Your task to perform on an android device: Show me the top rated dinnerware on Crate & Barrel Image 0: 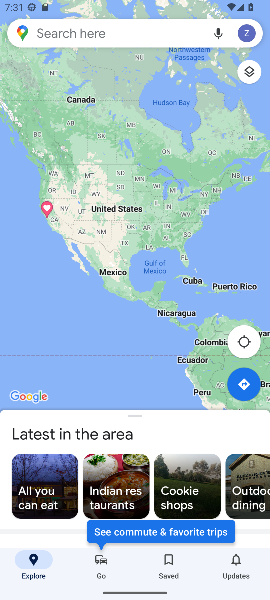
Step 0: press home button
Your task to perform on an android device: Show me the top rated dinnerware on Crate & Barrel Image 1: 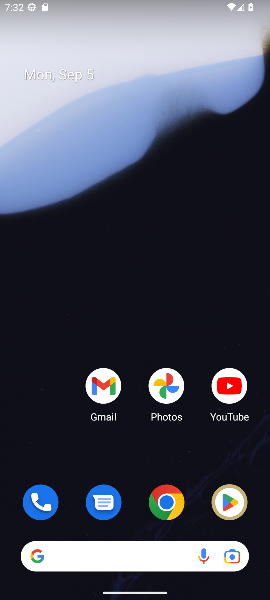
Step 1: drag from (204, 466) to (141, 1)
Your task to perform on an android device: Show me the top rated dinnerware on Crate & Barrel Image 2: 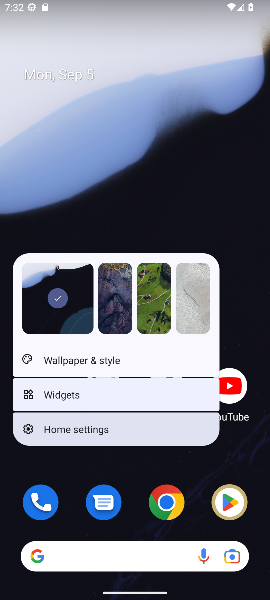
Step 2: click (182, 151)
Your task to perform on an android device: Show me the top rated dinnerware on Crate & Barrel Image 3: 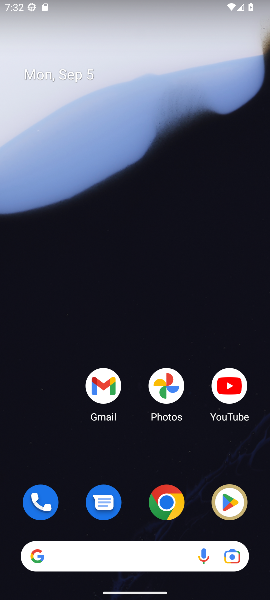
Step 3: drag from (202, 515) to (154, 31)
Your task to perform on an android device: Show me the top rated dinnerware on Crate & Barrel Image 4: 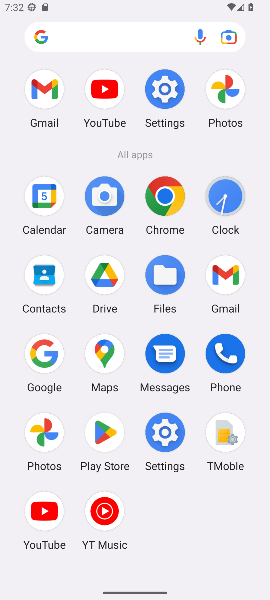
Step 4: click (44, 352)
Your task to perform on an android device: Show me the top rated dinnerware on Crate & Barrel Image 5: 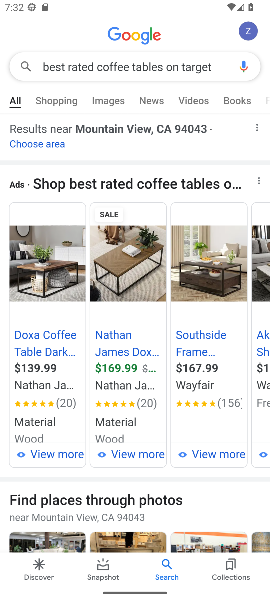
Step 5: press back button
Your task to perform on an android device: Show me the top rated dinnerware on Crate & Barrel Image 6: 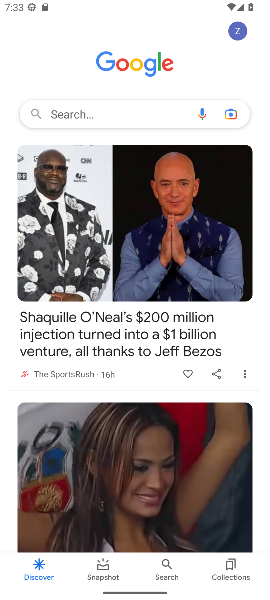
Step 6: click (91, 123)
Your task to perform on an android device: Show me the top rated dinnerware on Crate & Barrel Image 7: 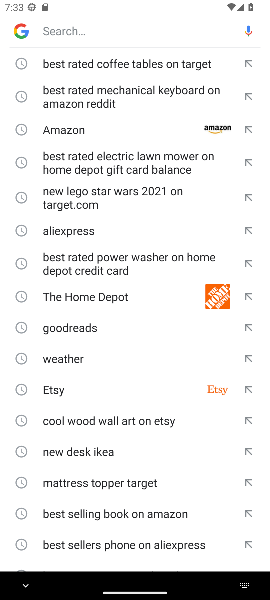
Step 7: type "rated dinnerware on Crate & Barrel"
Your task to perform on an android device: Show me the top rated dinnerware on Crate & Barrel Image 8: 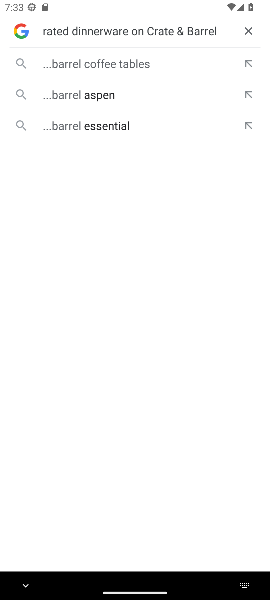
Step 8: click (111, 67)
Your task to perform on an android device: Show me the top rated dinnerware on Crate & Barrel Image 9: 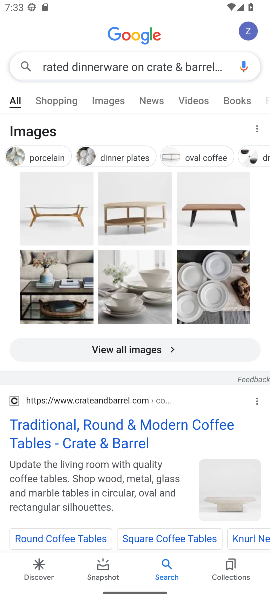
Step 9: task complete